Your task to perform on an android device: Toggle the flashlight Image 0: 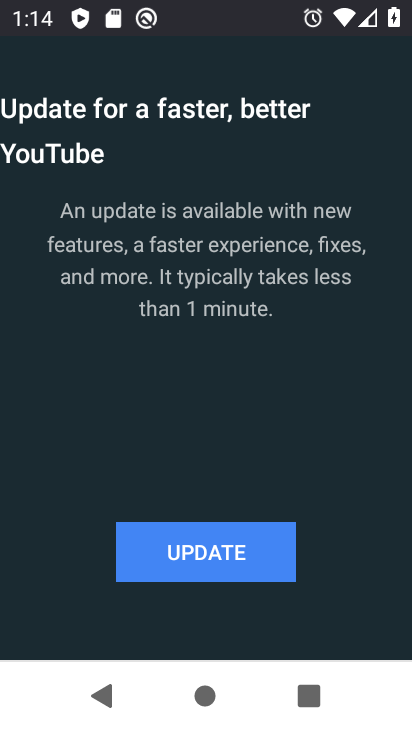
Step 0: drag from (343, 505) to (318, 373)
Your task to perform on an android device: Toggle the flashlight Image 1: 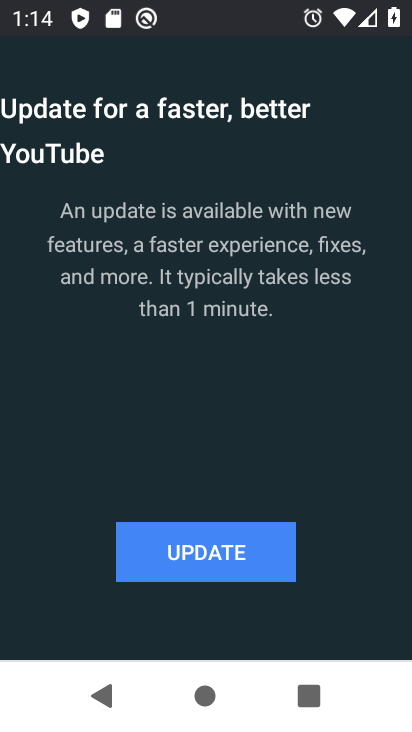
Step 1: press home button
Your task to perform on an android device: Toggle the flashlight Image 2: 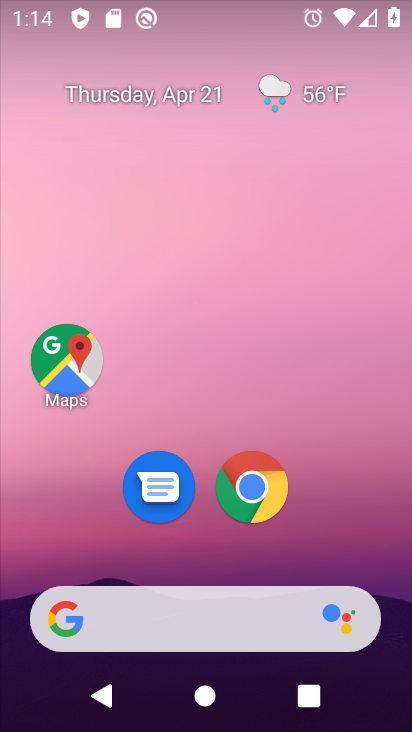
Step 2: drag from (349, 441) to (270, 183)
Your task to perform on an android device: Toggle the flashlight Image 3: 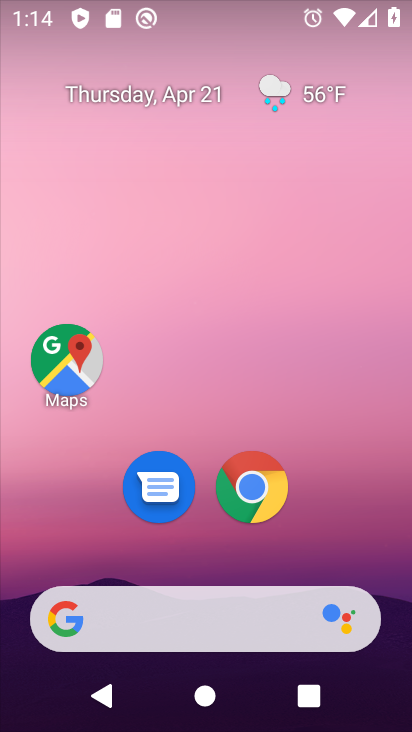
Step 3: drag from (317, 505) to (310, 94)
Your task to perform on an android device: Toggle the flashlight Image 4: 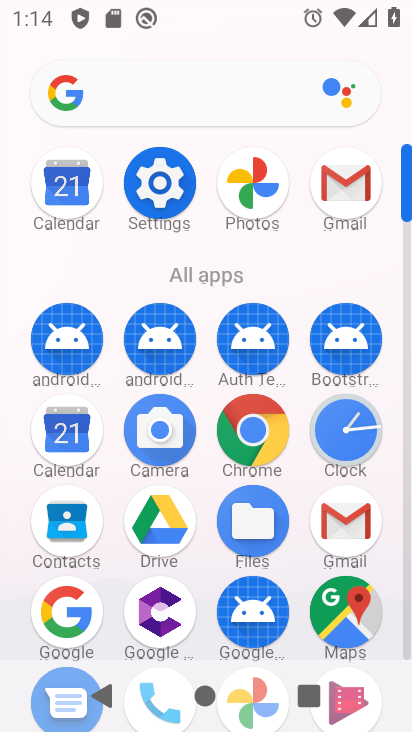
Step 4: click (165, 188)
Your task to perform on an android device: Toggle the flashlight Image 5: 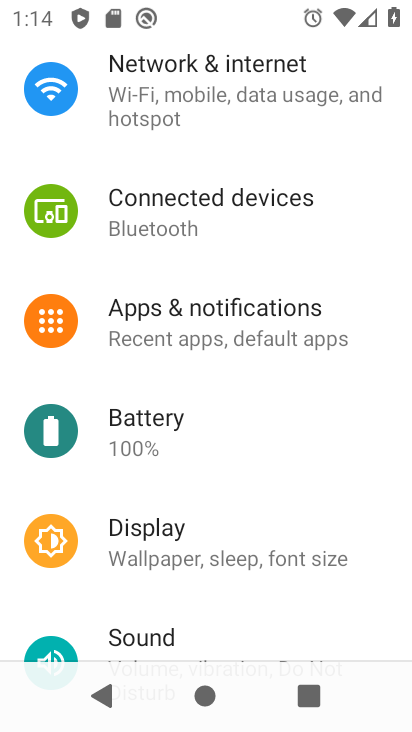
Step 5: drag from (285, 90) to (255, 467)
Your task to perform on an android device: Toggle the flashlight Image 6: 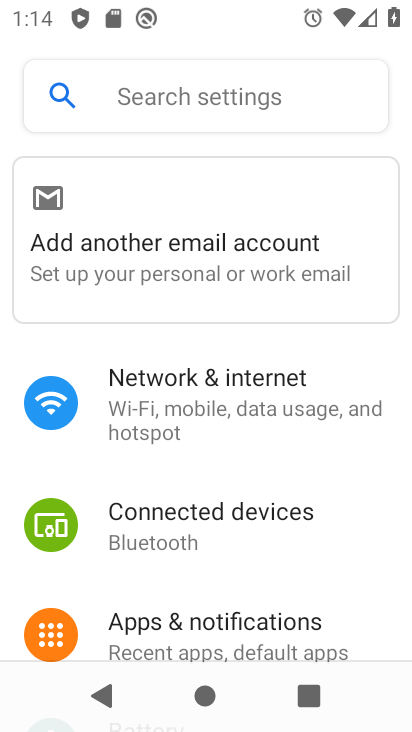
Step 6: click (201, 93)
Your task to perform on an android device: Toggle the flashlight Image 7: 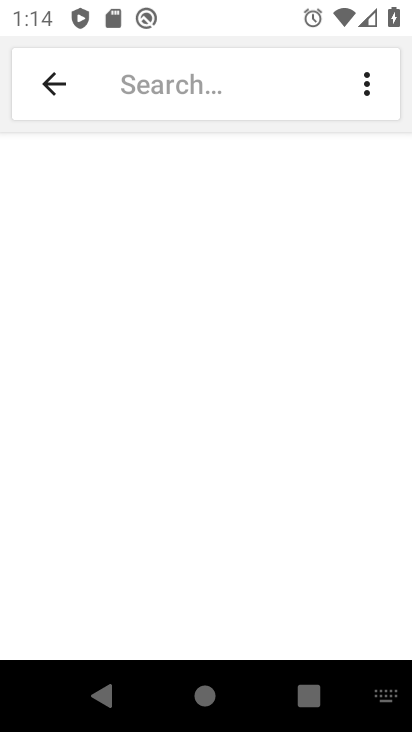
Step 7: type "flashligt"
Your task to perform on an android device: Toggle the flashlight Image 8: 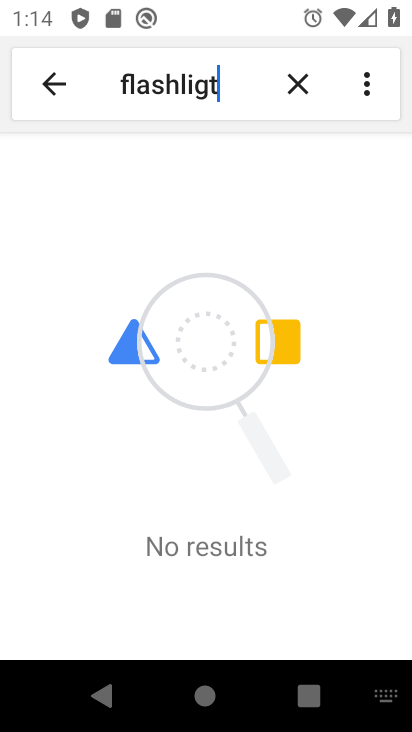
Step 8: click (207, 85)
Your task to perform on an android device: Toggle the flashlight Image 9: 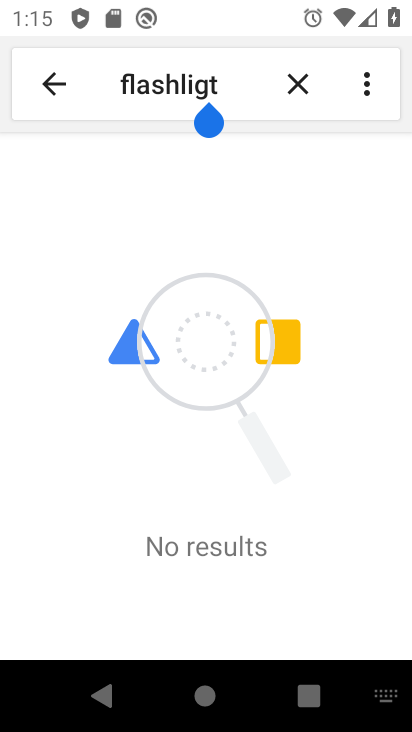
Step 9: type "h"
Your task to perform on an android device: Toggle the flashlight Image 10: 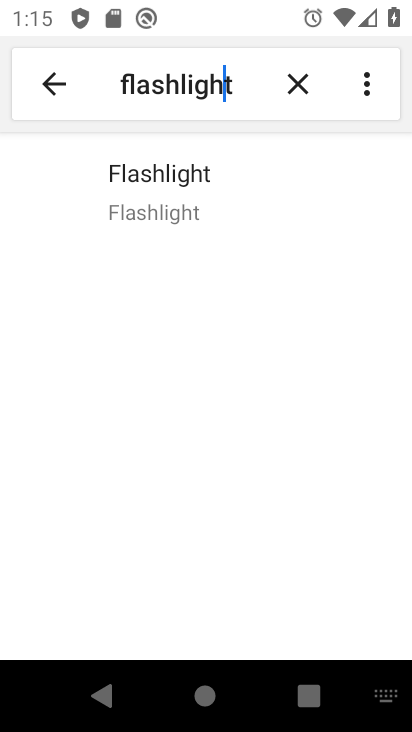
Step 10: click (167, 184)
Your task to perform on an android device: Toggle the flashlight Image 11: 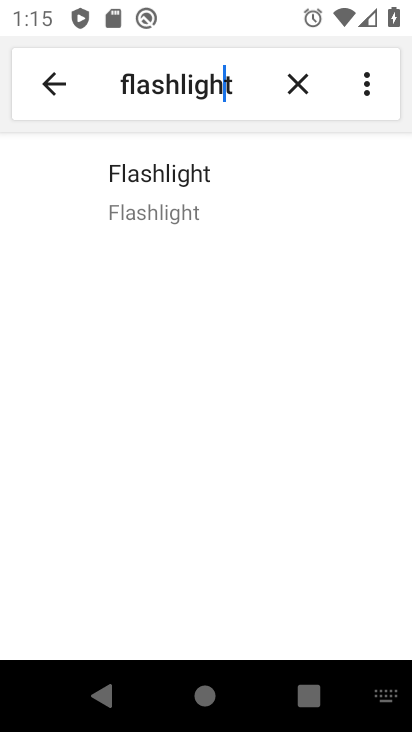
Step 11: click (163, 182)
Your task to perform on an android device: Toggle the flashlight Image 12: 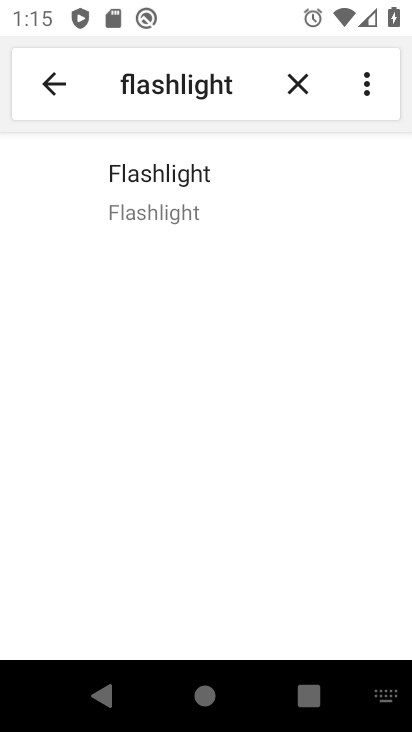
Step 12: task complete